Your task to perform on an android device: Go to settings Image 0: 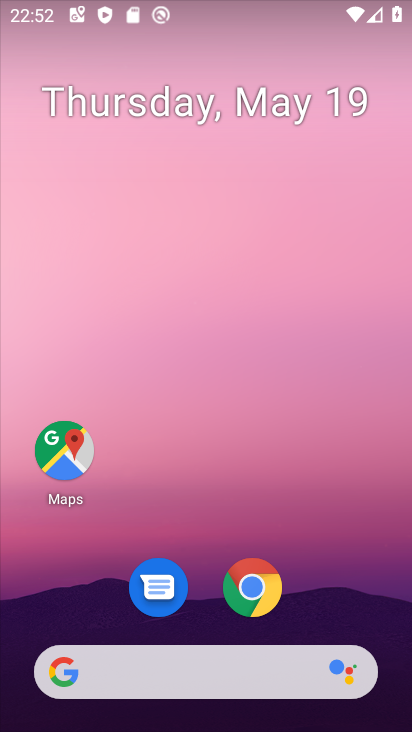
Step 0: drag from (240, 696) to (268, 226)
Your task to perform on an android device: Go to settings Image 1: 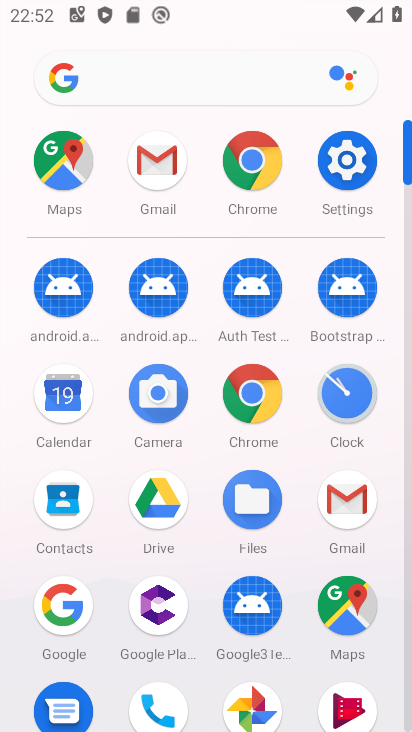
Step 1: click (365, 162)
Your task to perform on an android device: Go to settings Image 2: 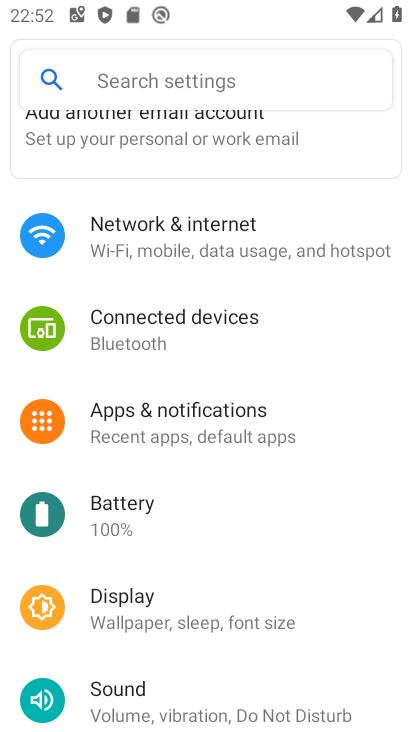
Step 2: task complete